Your task to perform on an android device: turn on wifi Image 0: 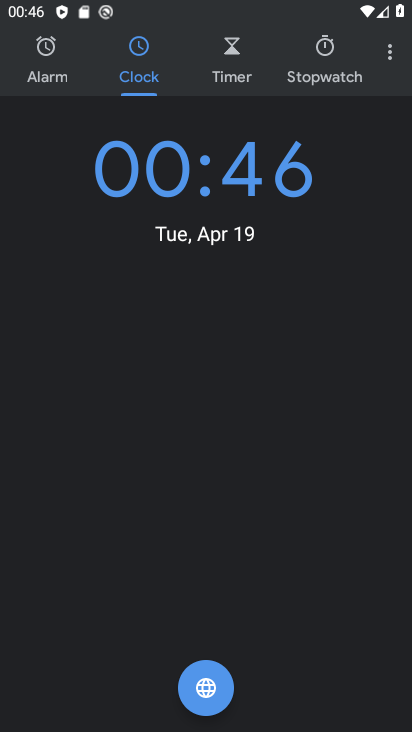
Step 0: press home button
Your task to perform on an android device: turn on wifi Image 1: 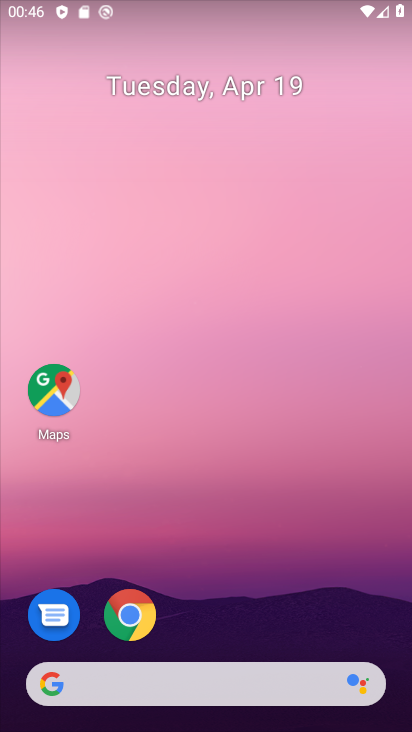
Step 1: drag from (243, 541) to (263, 211)
Your task to perform on an android device: turn on wifi Image 2: 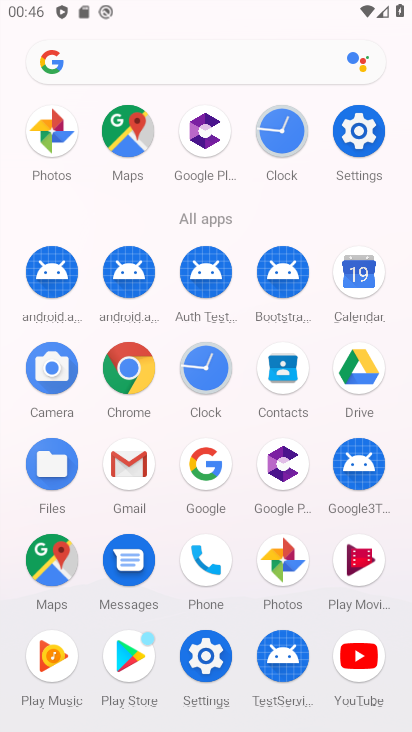
Step 2: click (352, 150)
Your task to perform on an android device: turn on wifi Image 3: 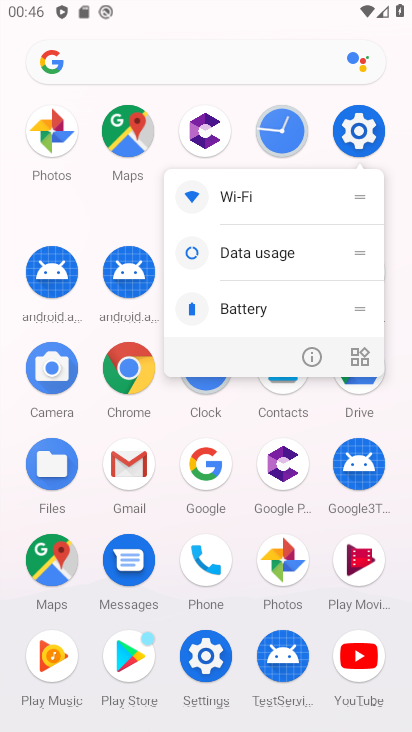
Step 3: click (367, 108)
Your task to perform on an android device: turn on wifi Image 4: 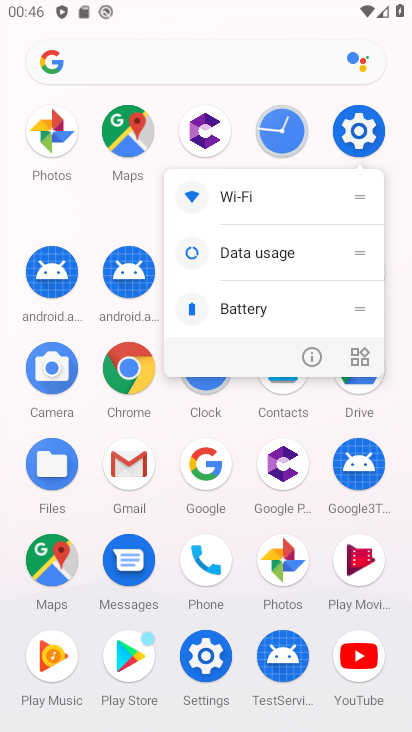
Step 4: click (360, 129)
Your task to perform on an android device: turn on wifi Image 5: 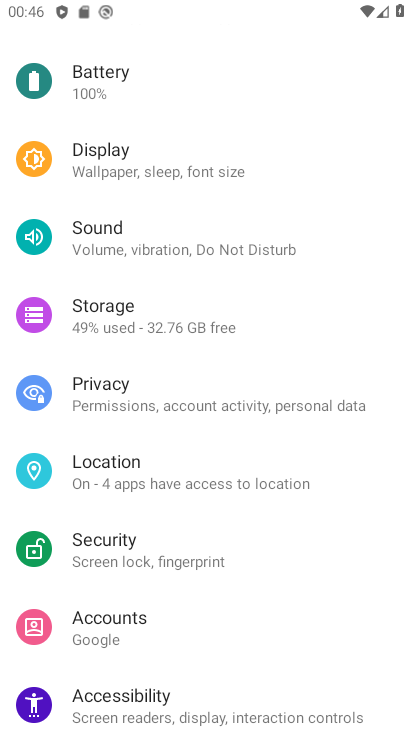
Step 5: drag from (242, 92) to (189, 646)
Your task to perform on an android device: turn on wifi Image 6: 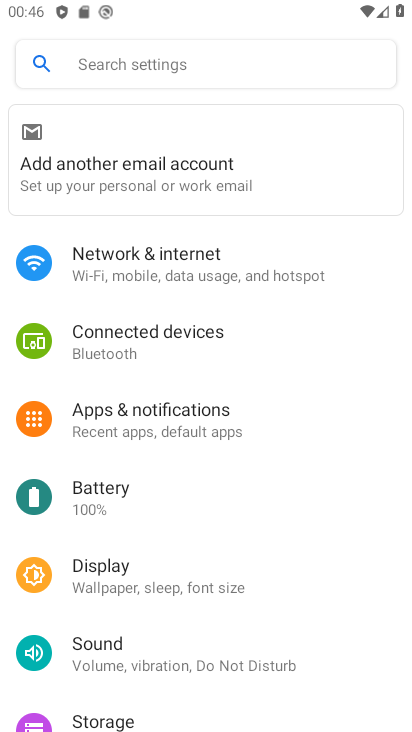
Step 6: click (168, 265)
Your task to perform on an android device: turn on wifi Image 7: 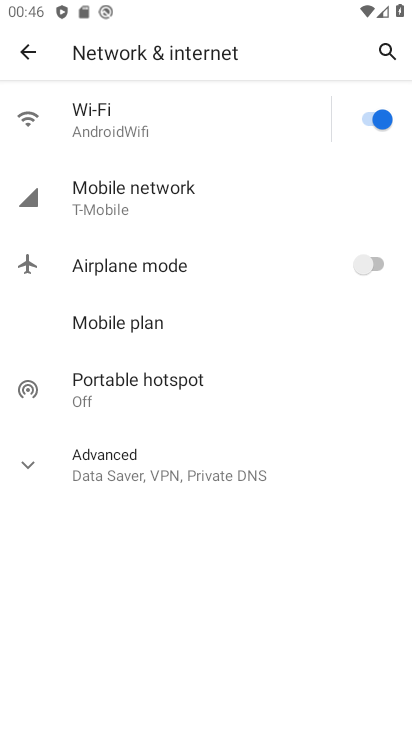
Step 7: task complete